Your task to perform on an android device: open a new tab in the chrome app Image 0: 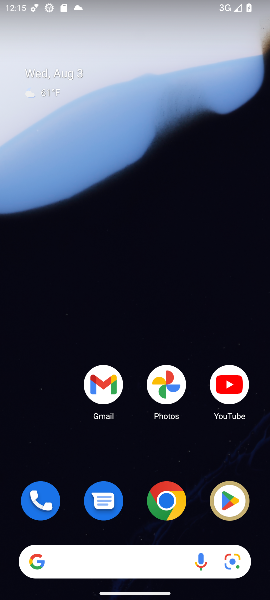
Step 0: click (163, 509)
Your task to perform on an android device: open a new tab in the chrome app Image 1: 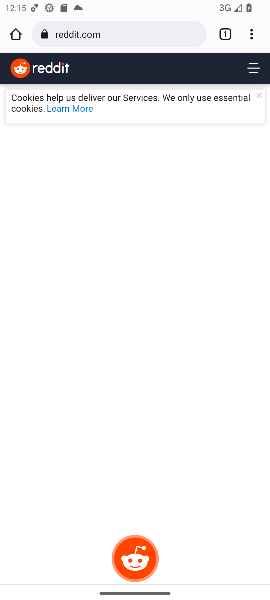
Step 1: click (245, 34)
Your task to perform on an android device: open a new tab in the chrome app Image 2: 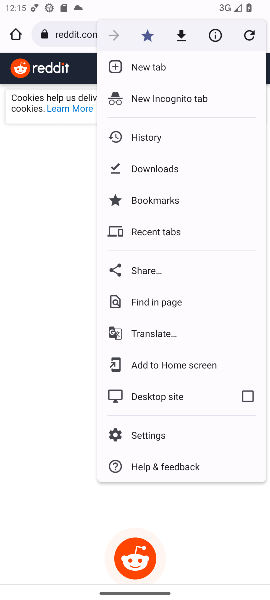
Step 2: click (127, 67)
Your task to perform on an android device: open a new tab in the chrome app Image 3: 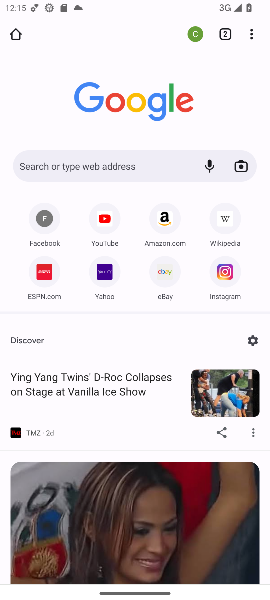
Step 3: task complete